Your task to perform on an android device: Open the phone app and click the voicemail tab. Image 0: 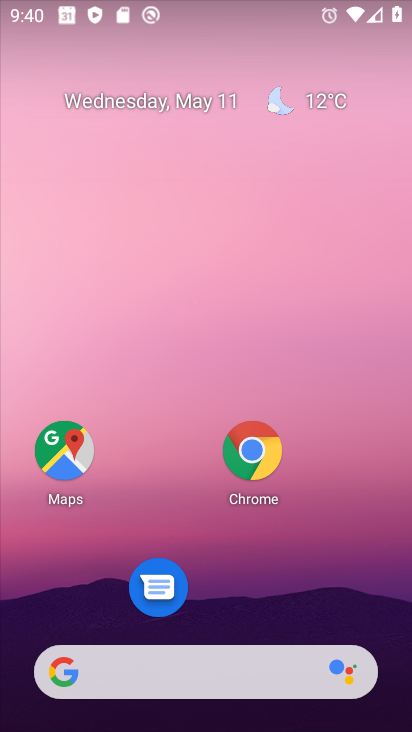
Step 0: drag from (368, 631) to (366, 15)
Your task to perform on an android device: Open the phone app and click the voicemail tab. Image 1: 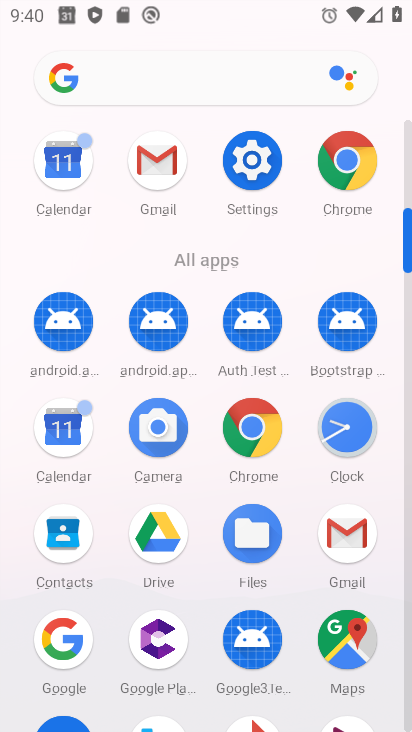
Step 1: click (404, 529)
Your task to perform on an android device: Open the phone app and click the voicemail tab. Image 2: 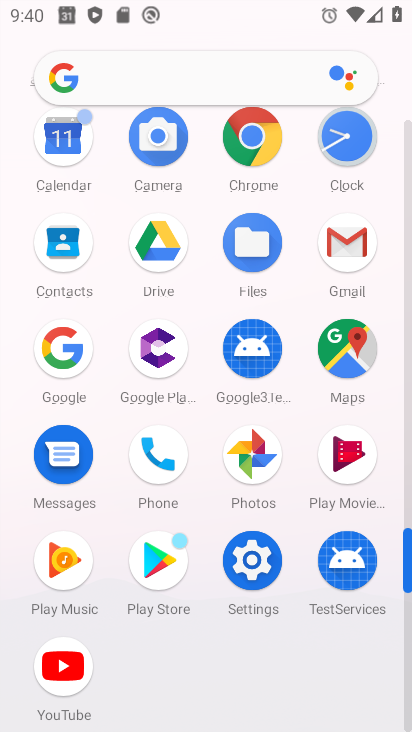
Step 2: click (153, 479)
Your task to perform on an android device: Open the phone app and click the voicemail tab. Image 3: 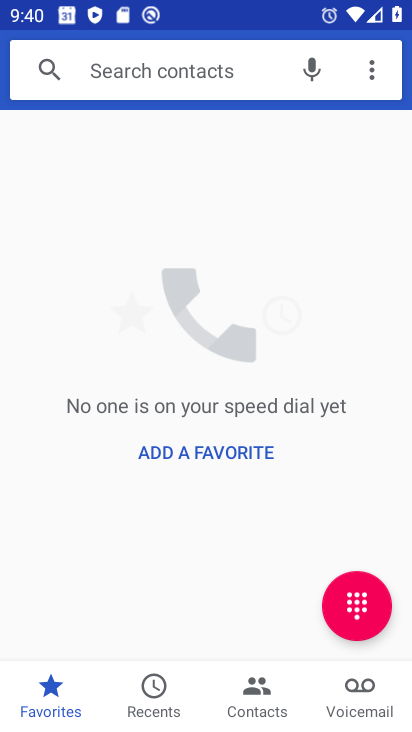
Step 3: click (353, 707)
Your task to perform on an android device: Open the phone app and click the voicemail tab. Image 4: 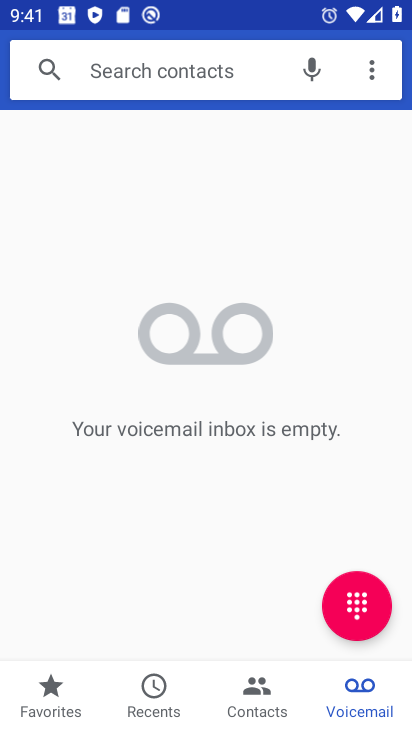
Step 4: task complete